Your task to perform on an android device: Do I have any events today? Image 0: 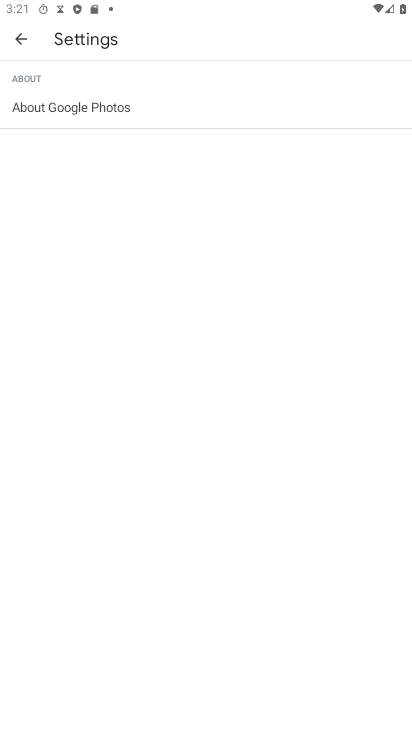
Step 0: press home button
Your task to perform on an android device: Do I have any events today? Image 1: 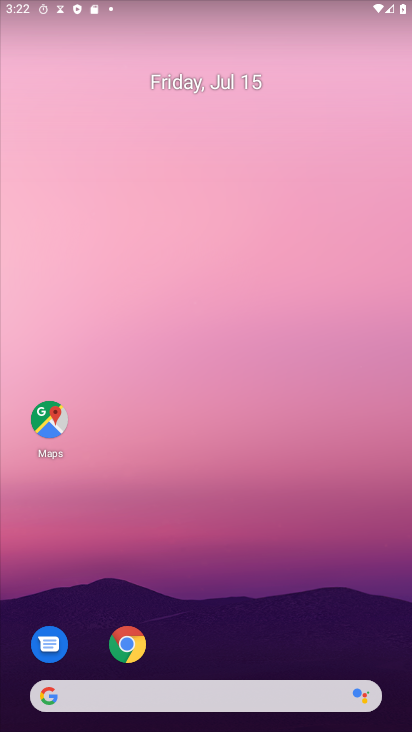
Step 1: drag from (160, 681) to (238, 37)
Your task to perform on an android device: Do I have any events today? Image 2: 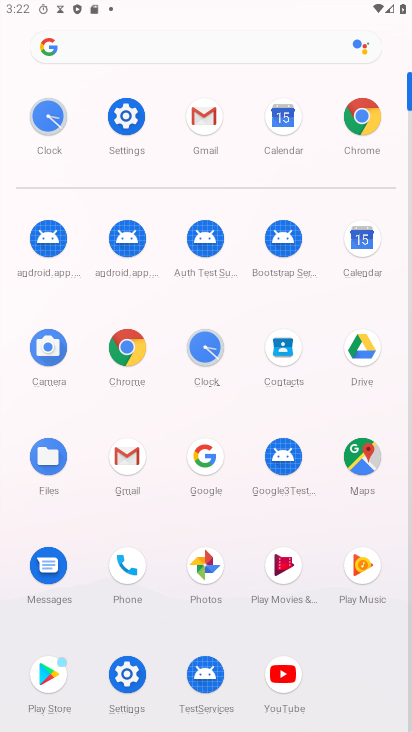
Step 2: click (339, 239)
Your task to perform on an android device: Do I have any events today? Image 3: 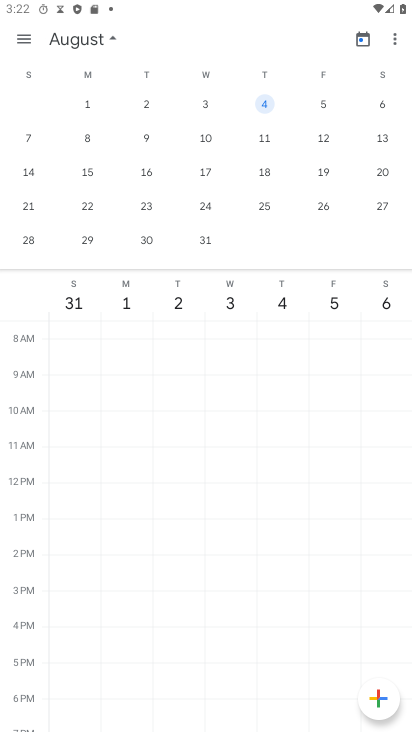
Step 3: drag from (98, 190) to (396, 174)
Your task to perform on an android device: Do I have any events today? Image 4: 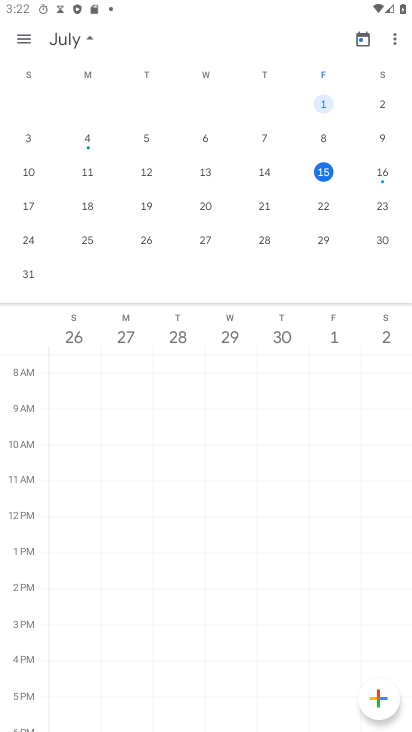
Step 4: click (323, 168)
Your task to perform on an android device: Do I have any events today? Image 5: 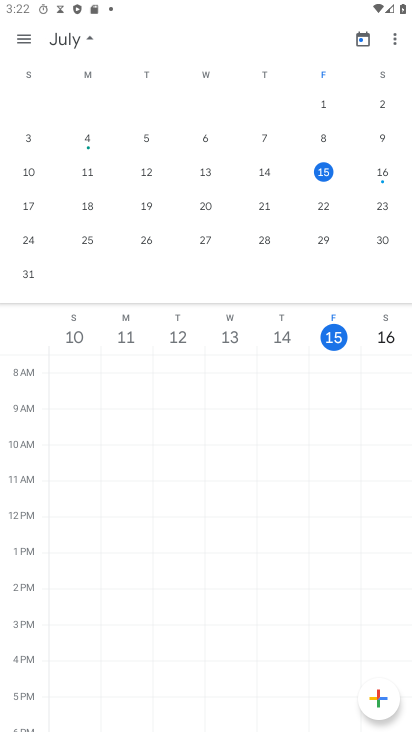
Step 5: task complete